Your task to perform on an android device: set the stopwatch Image 0: 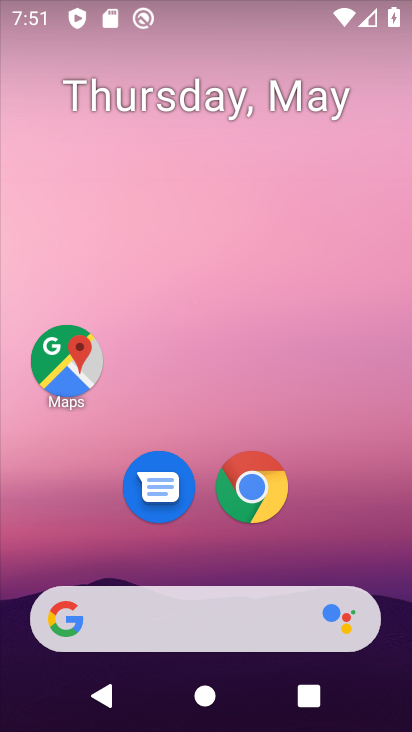
Step 0: drag from (163, 725) to (255, 101)
Your task to perform on an android device: set the stopwatch Image 1: 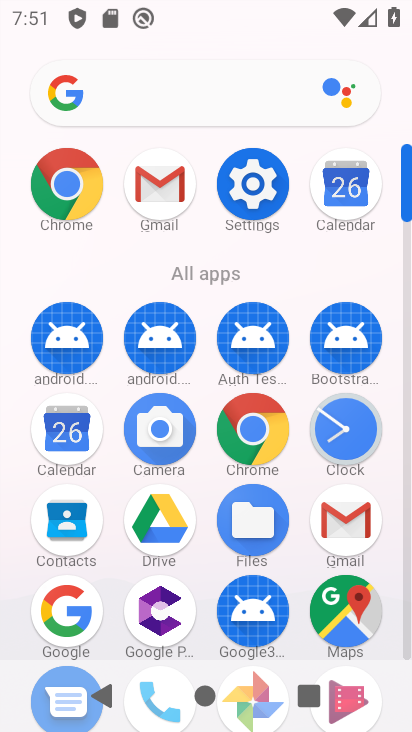
Step 1: click (328, 430)
Your task to perform on an android device: set the stopwatch Image 2: 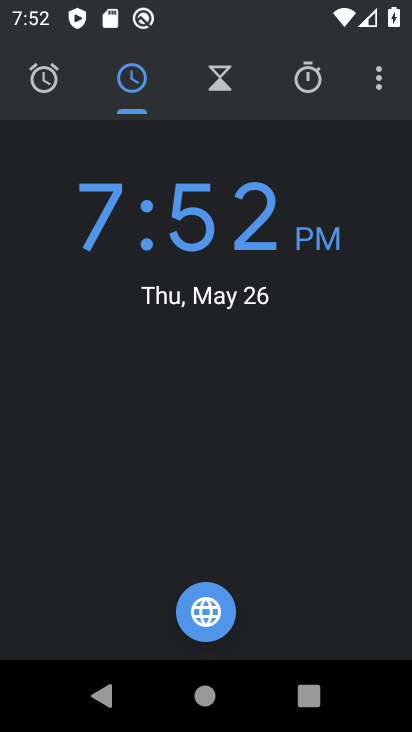
Step 2: click (296, 84)
Your task to perform on an android device: set the stopwatch Image 3: 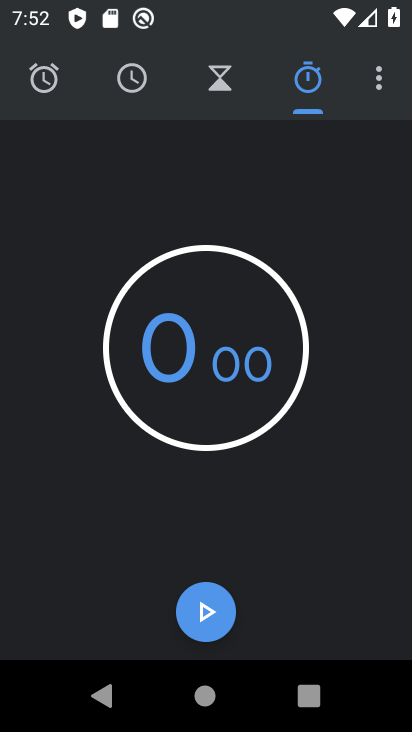
Step 3: click (216, 636)
Your task to perform on an android device: set the stopwatch Image 4: 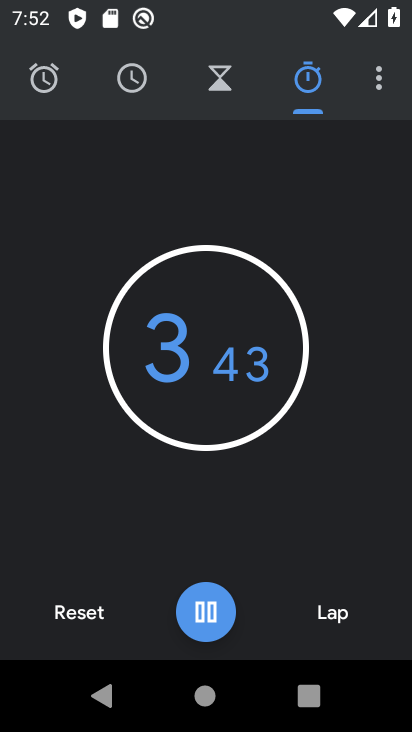
Step 4: click (212, 618)
Your task to perform on an android device: set the stopwatch Image 5: 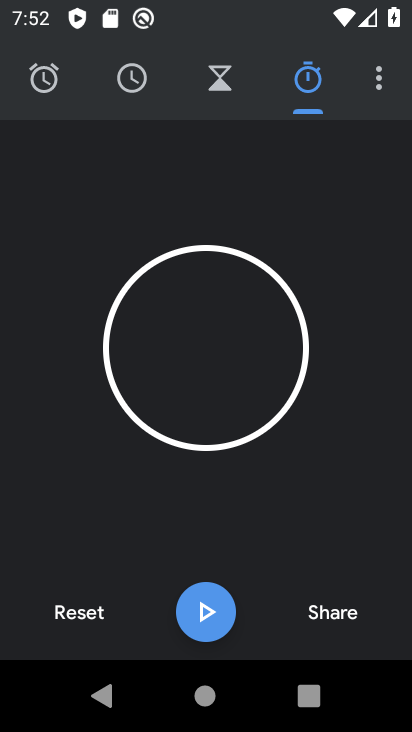
Step 5: click (52, 613)
Your task to perform on an android device: set the stopwatch Image 6: 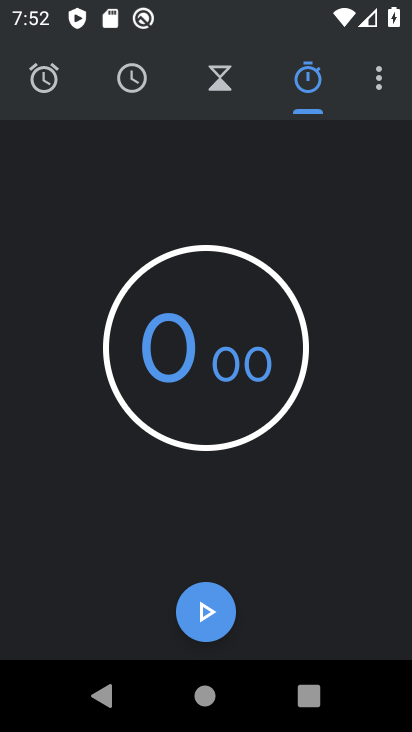
Step 6: task complete